Your task to perform on an android device: delete the emails in spam in the gmail app Image 0: 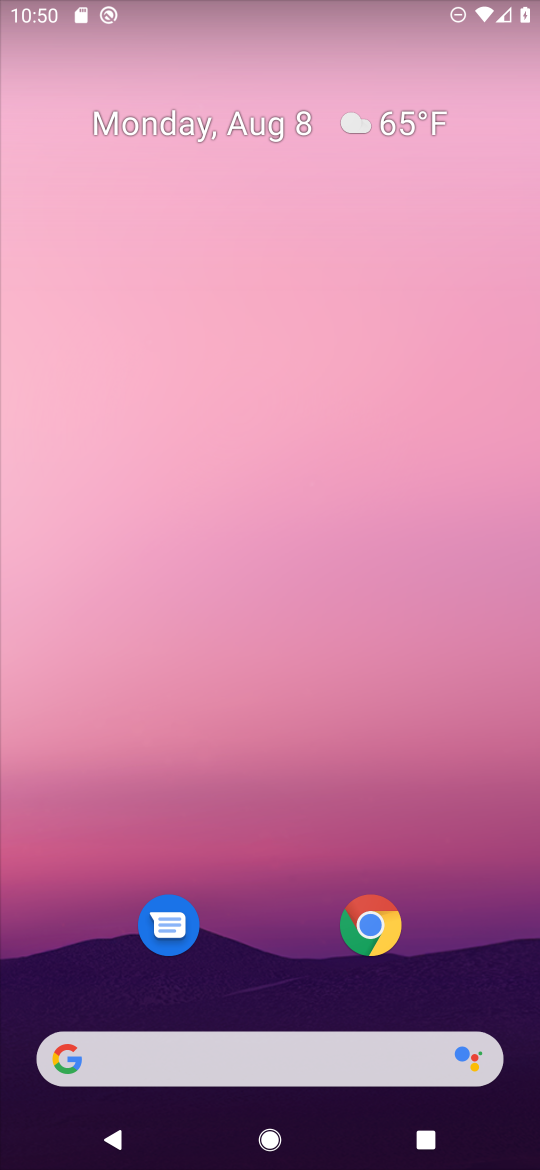
Step 0: drag from (276, 947) to (296, 84)
Your task to perform on an android device: delete the emails in spam in the gmail app Image 1: 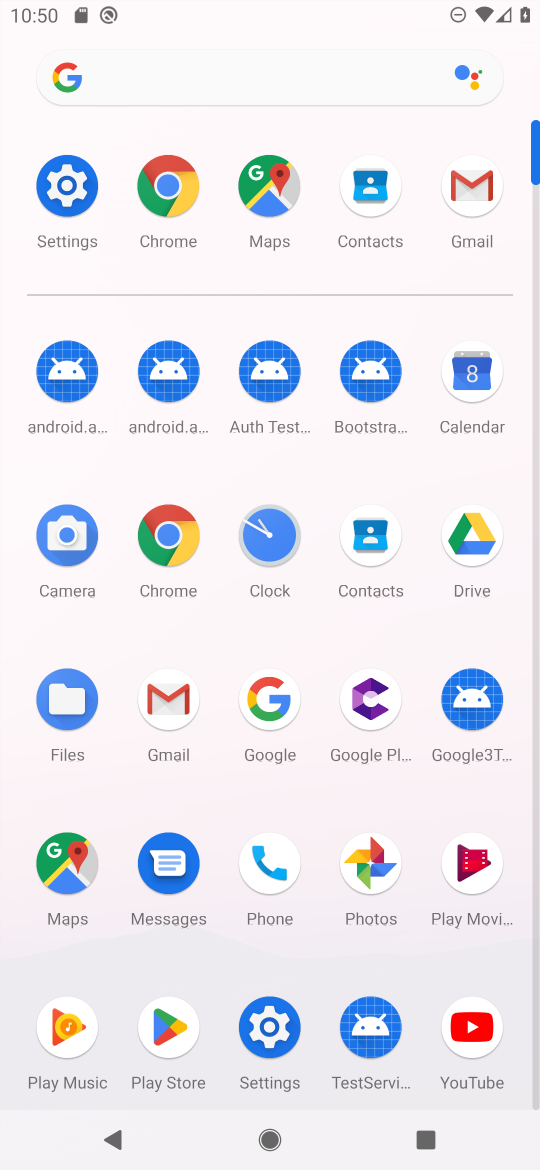
Step 1: click (158, 706)
Your task to perform on an android device: delete the emails in spam in the gmail app Image 2: 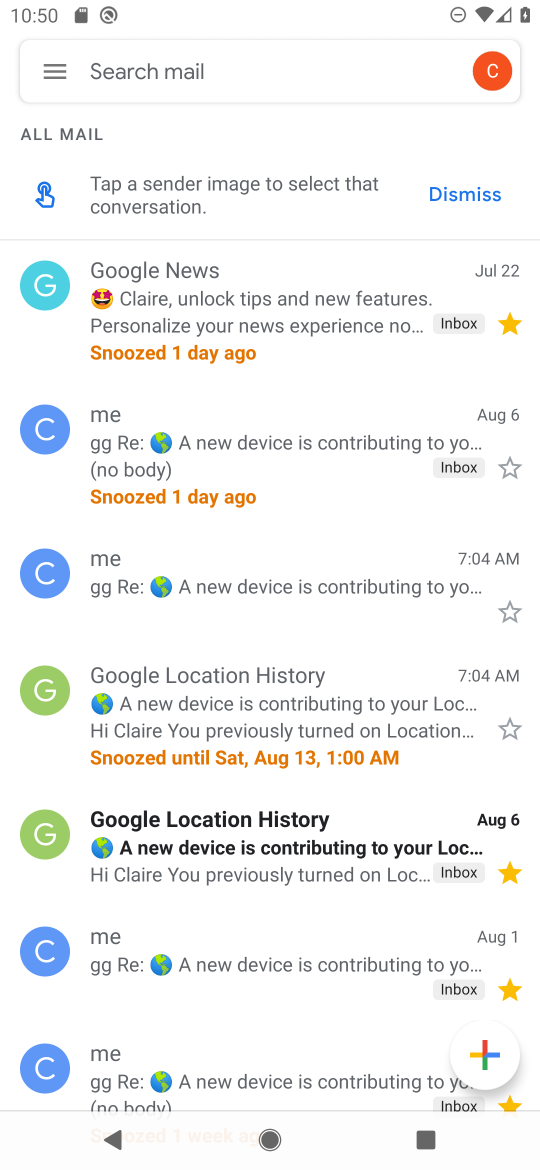
Step 2: click (65, 71)
Your task to perform on an android device: delete the emails in spam in the gmail app Image 3: 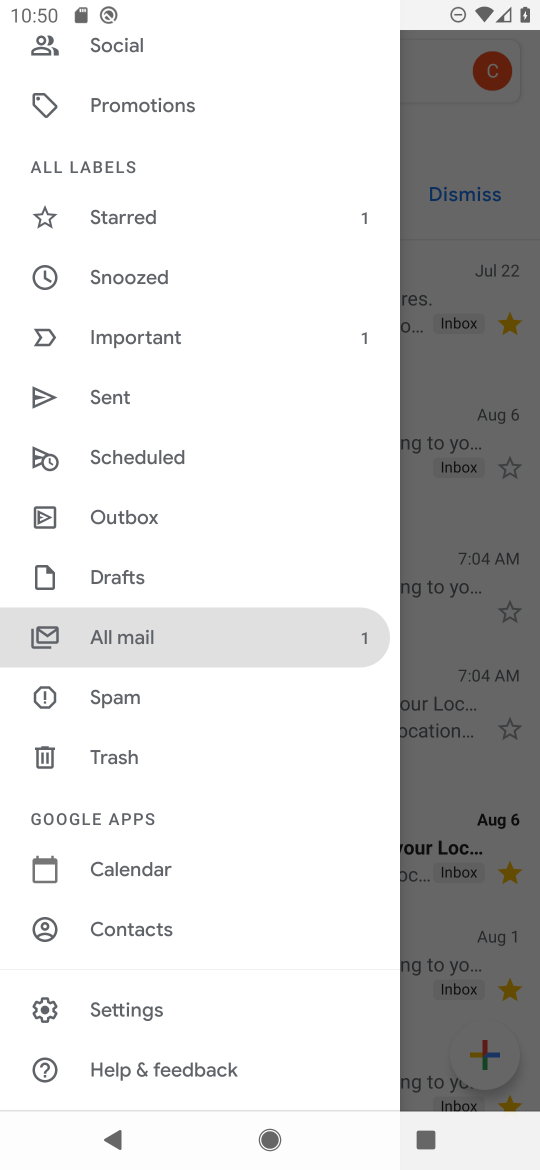
Step 3: click (135, 691)
Your task to perform on an android device: delete the emails in spam in the gmail app Image 4: 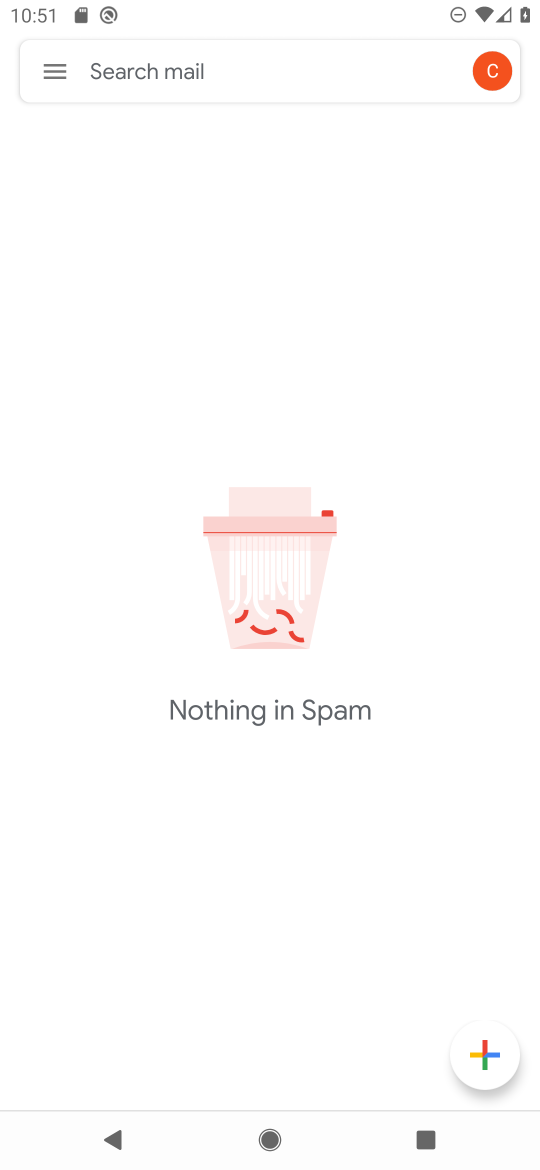
Step 4: task complete